Your task to perform on an android device: change the clock display to show seconds Image 0: 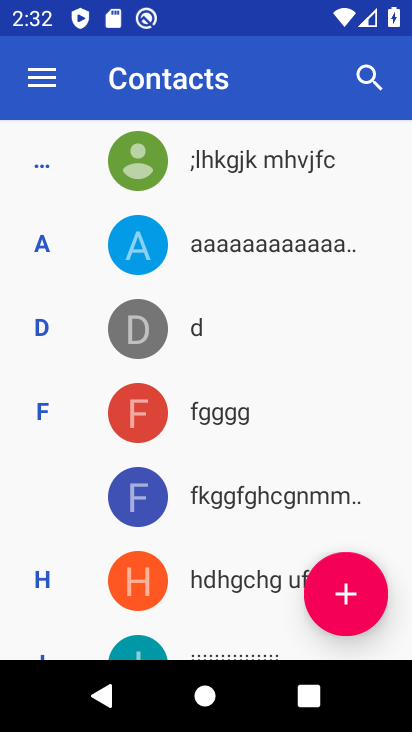
Step 0: press back button
Your task to perform on an android device: change the clock display to show seconds Image 1: 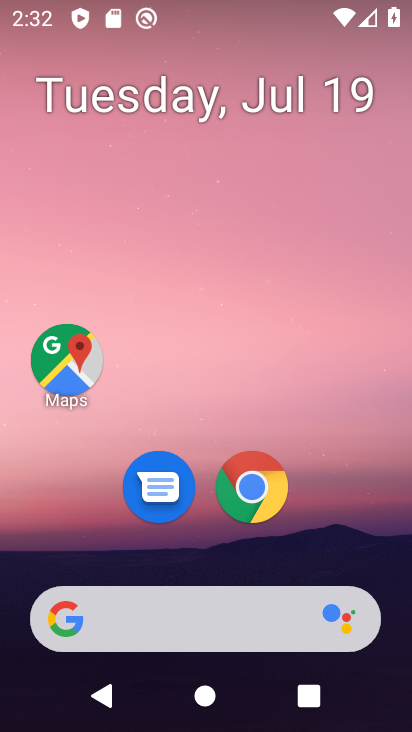
Step 1: drag from (96, 588) to (294, 37)
Your task to perform on an android device: change the clock display to show seconds Image 2: 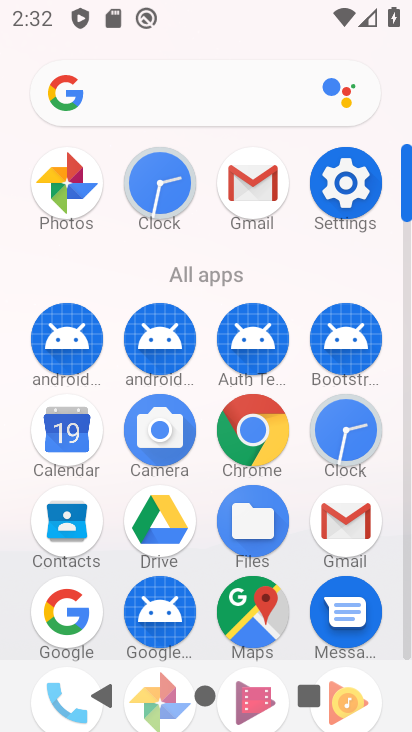
Step 2: click (158, 183)
Your task to perform on an android device: change the clock display to show seconds Image 3: 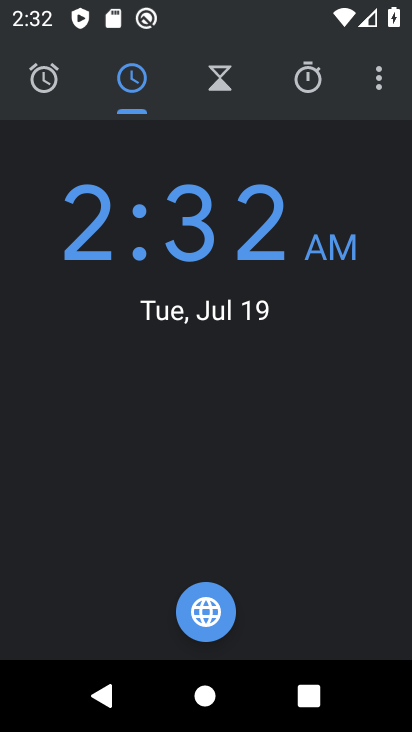
Step 3: click (377, 71)
Your task to perform on an android device: change the clock display to show seconds Image 4: 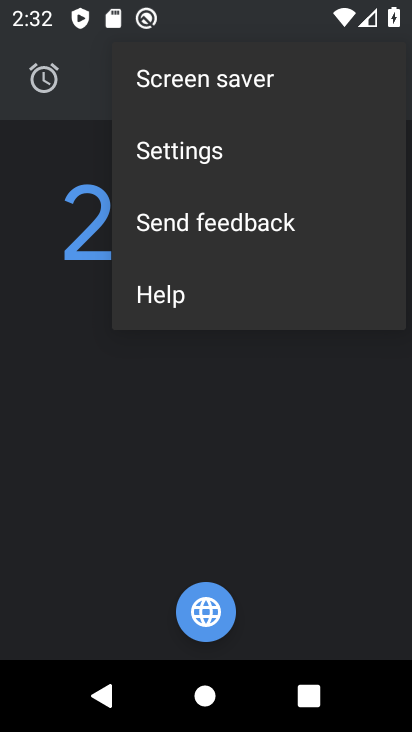
Step 4: click (193, 145)
Your task to perform on an android device: change the clock display to show seconds Image 5: 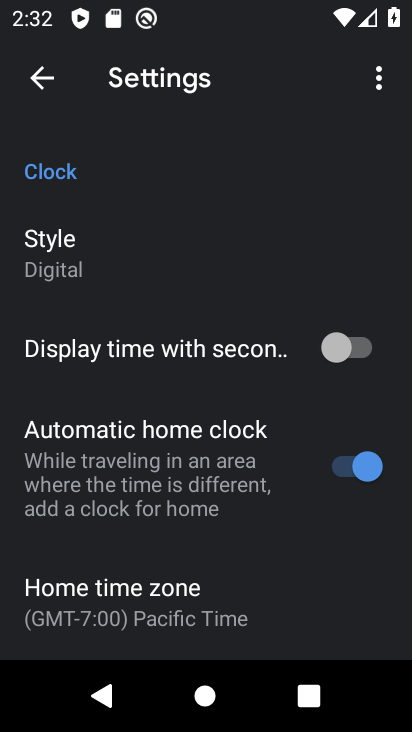
Step 5: click (347, 346)
Your task to perform on an android device: change the clock display to show seconds Image 6: 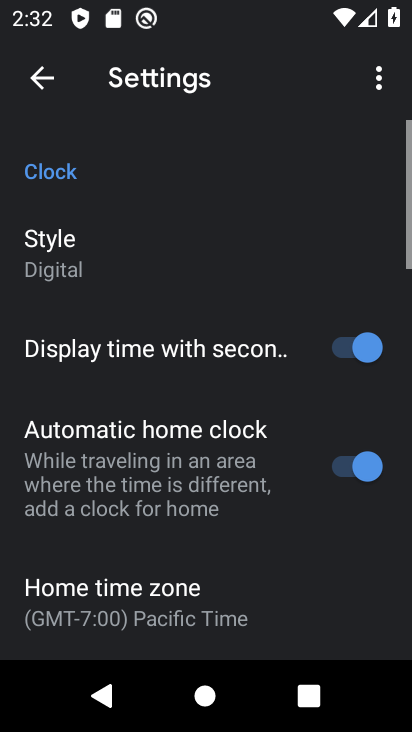
Step 6: click (176, 265)
Your task to perform on an android device: change the clock display to show seconds Image 7: 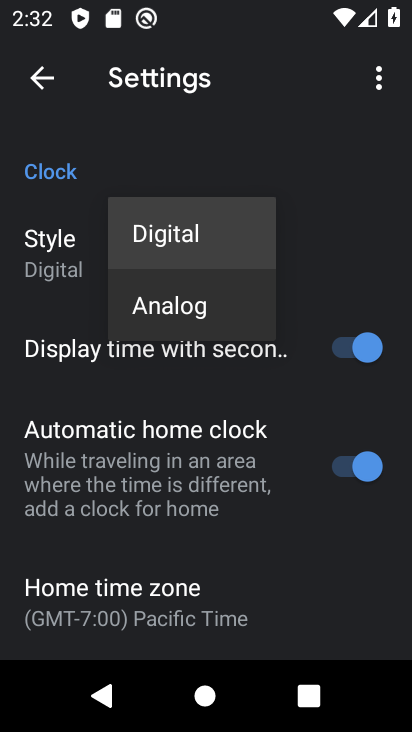
Step 7: click (148, 314)
Your task to perform on an android device: change the clock display to show seconds Image 8: 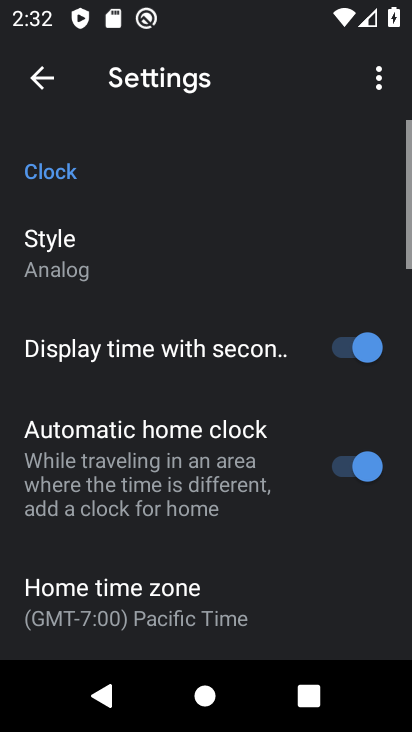
Step 8: click (83, 243)
Your task to perform on an android device: change the clock display to show seconds Image 9: 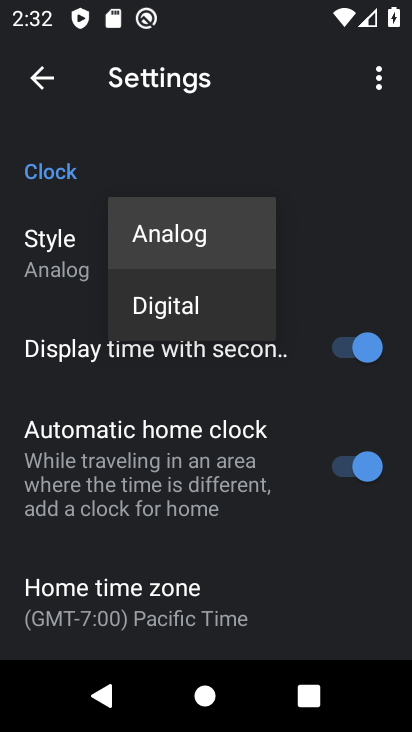
Step 9: click (181, 279)
Your task to perform on an android device: change the clock display to show seconds Image 10: 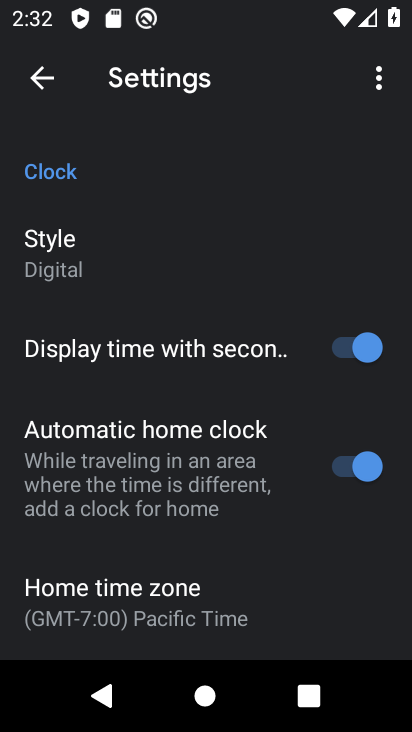
Step 10: task complete